Your task to perform on an android device: install app "Reddit" Image 0: 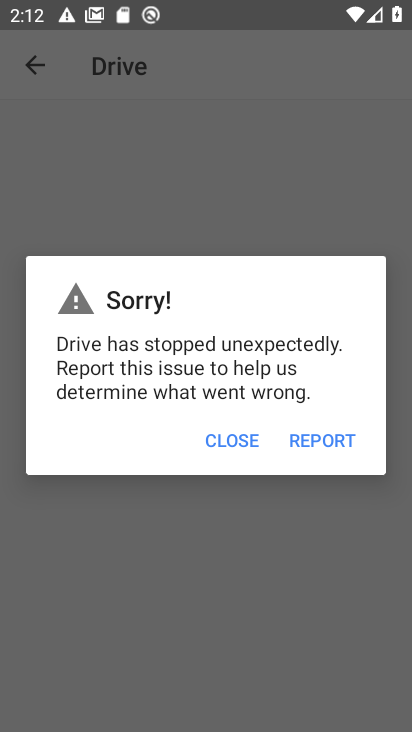
Step 0: press back button
Your task to perform on an android device: install app "Reddit" Image 1: 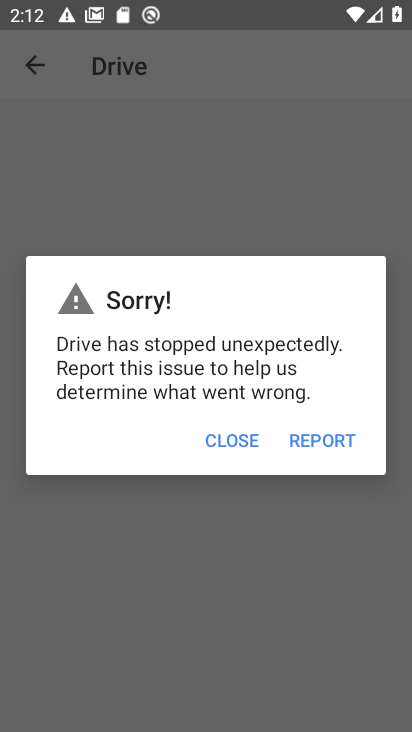
Step 1: press back button
Your task to perform on an android device: install app "Reddit" Image 2: 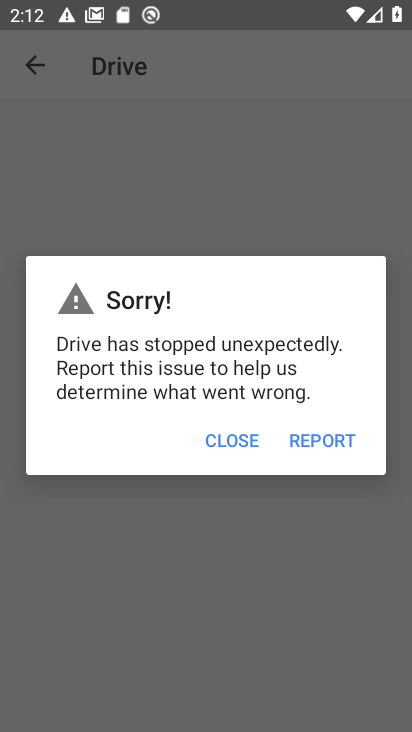
Step 2: press back button
Your task to perform on an android device: install app "Reddit" Image 3: 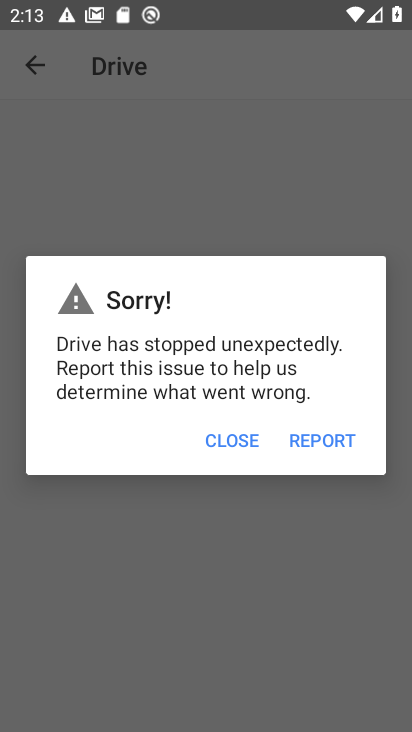
Step 3: press home button
Your task to perform on an android device: install app "Reddit" Image 4: 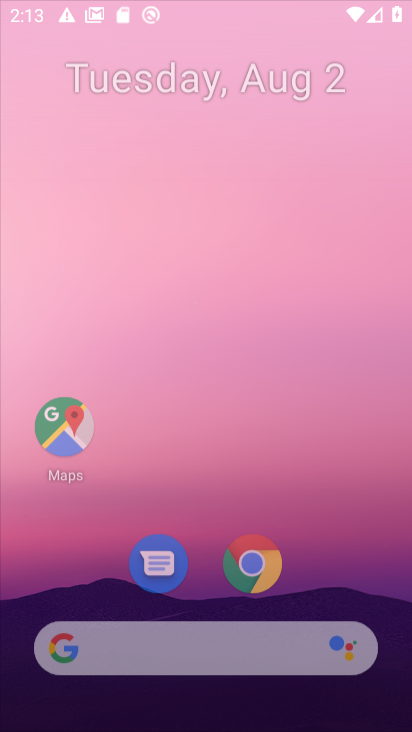
Step 4: press back button
Your task to perform on an android device: install app "Reddit" Image 5: 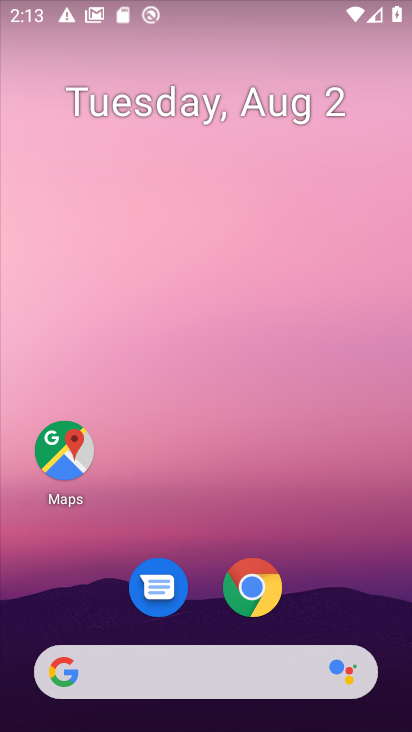
Step 5: drag from (207, 533) to (207, 166)
Your task to perform on an android device: install app "Reddit" Image 6: 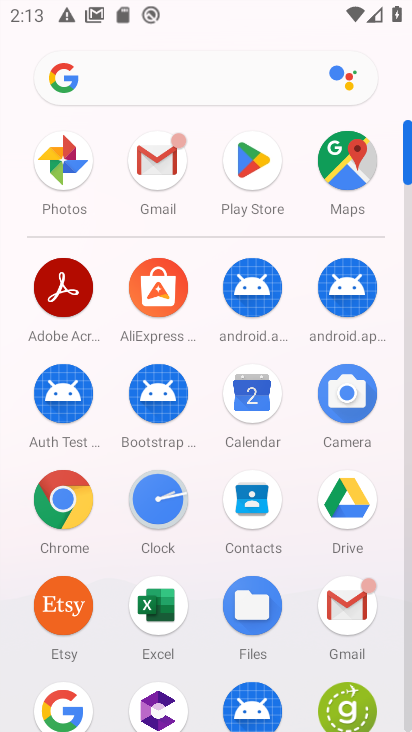
Step 6: click (239, 180)
Your task to perform on an android device: install app "Reddit" Image 7: 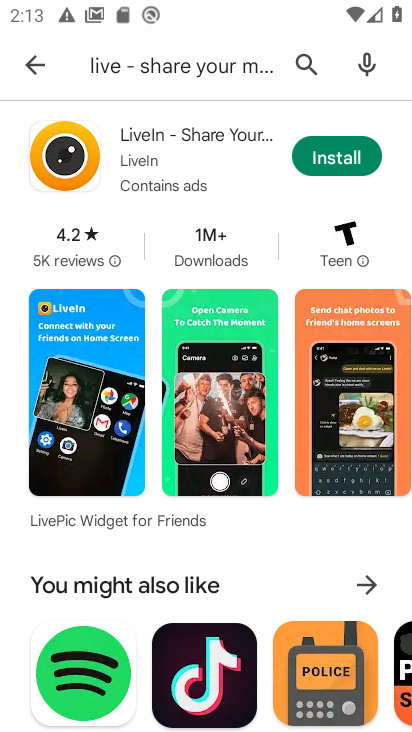
Step 7: click (312, 69)
Your task to perform on an android device: install app "Reddit" Image 8: 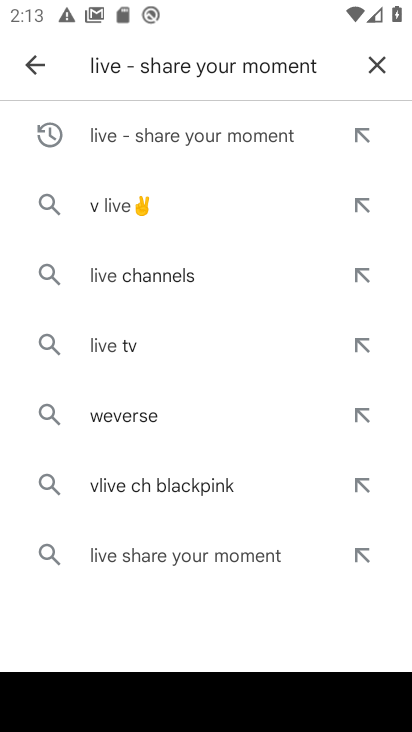
Step 8: click (370, 67)
Your task to perform on an android device: install app "Reddit" Image 9: 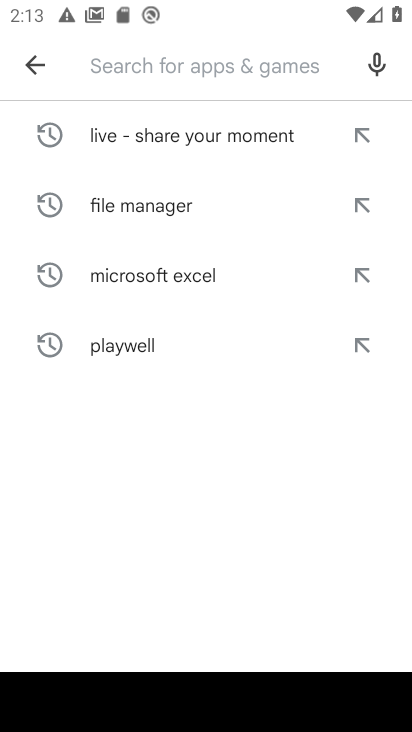
Step 9: type "Reddit"
Your task to perform on an android device: install app "Reddit" Image 10: 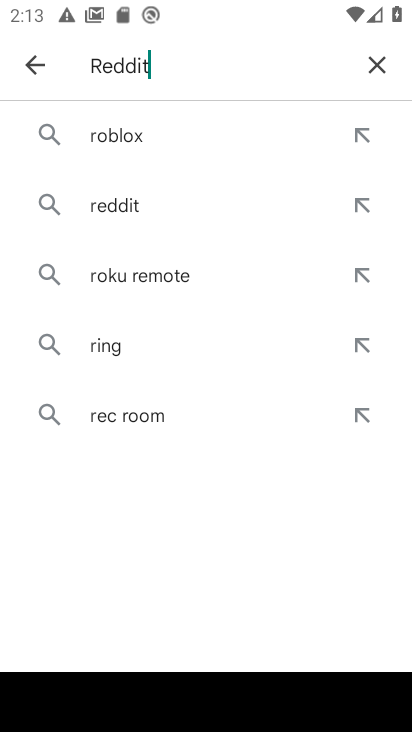
Step 10: type ""
Your task to perform on an android device: install app "Reddit" Image 11: 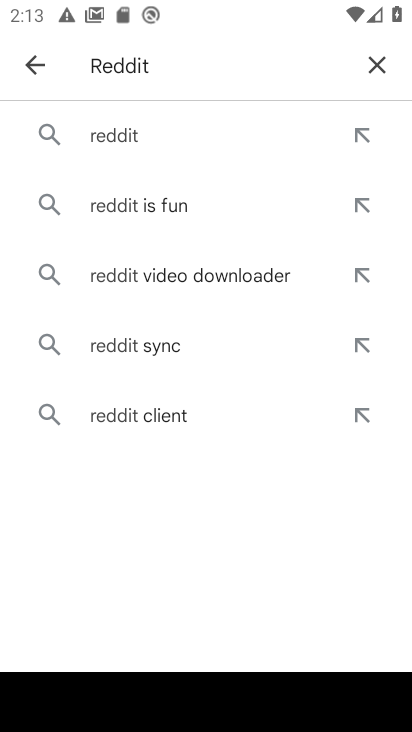
Step 11: click (165, 121)
Your task to perform on an android device: install app "Reddit" Image 12: 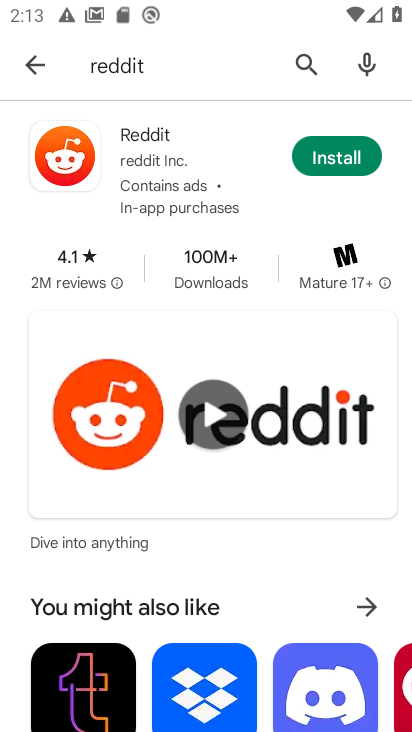
Step 12: click (334, 158)
Your task to perform on an android device: install app "Reddit" Image 13: 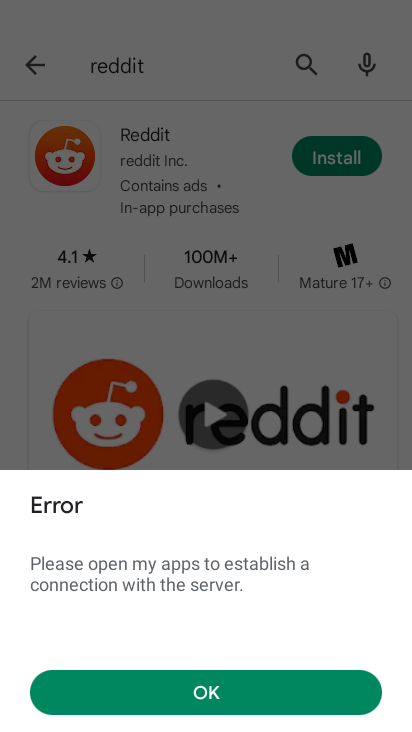
Step 13: task complete